Your task to perform on an android device: find snoozed emails in the gmail app Image 0: 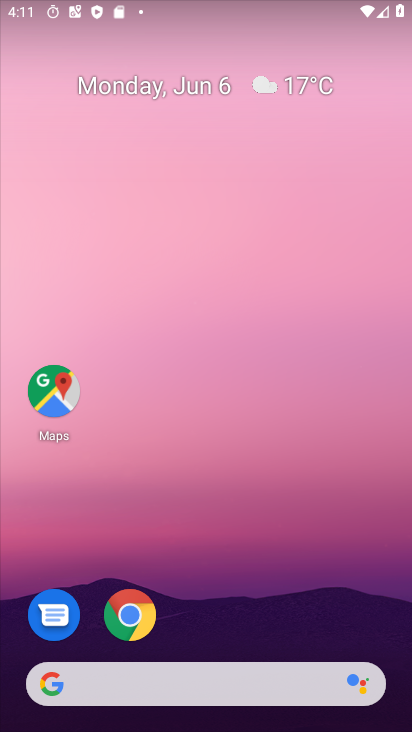
Step 0: drag from (306, 668) to (241, 0)
Your task to perform on an android device: find snoozed emails in the gmail app Image 1: 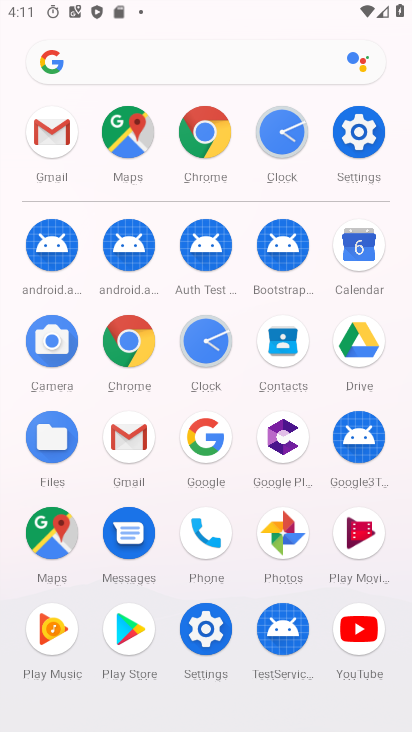
Step 1: click (128, 430)
Your task to perform on an android device: find snoozed emails in the gmail app Image 2: 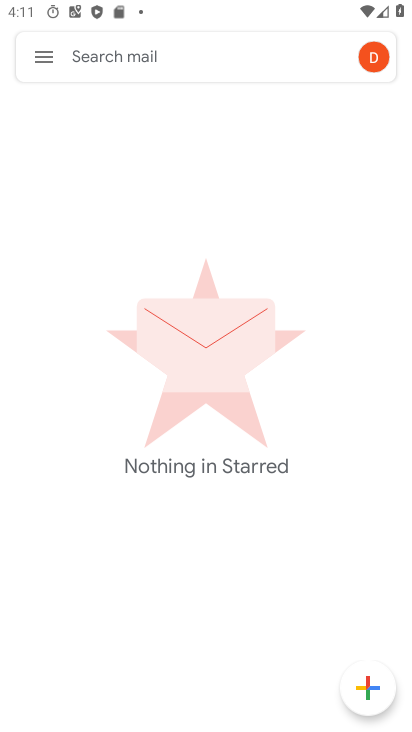
Step 2: click (54, 61)
Your task to perform on an android device: find snoozed emails in the gmail app Image 3: 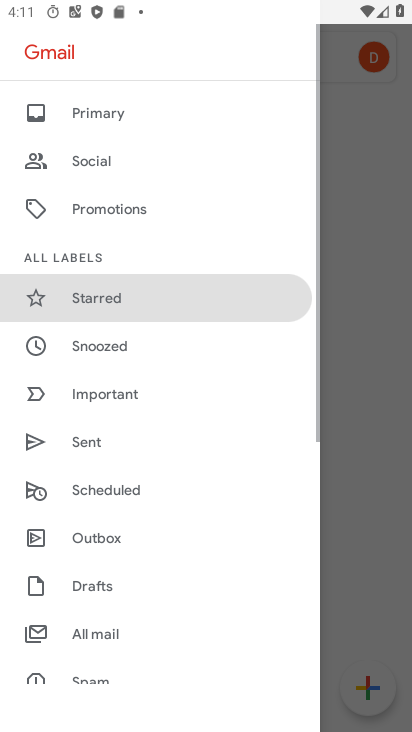
Step 3: click (116, 335)
Your task to perform on an android device: find snoozed emails in the gmail app Image 4: 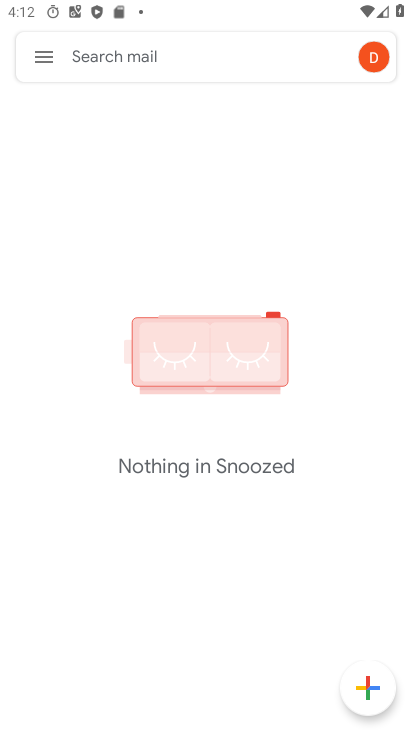
Step 4: task complete